Your task to perform on an android device: Go to notification settings Image 0: 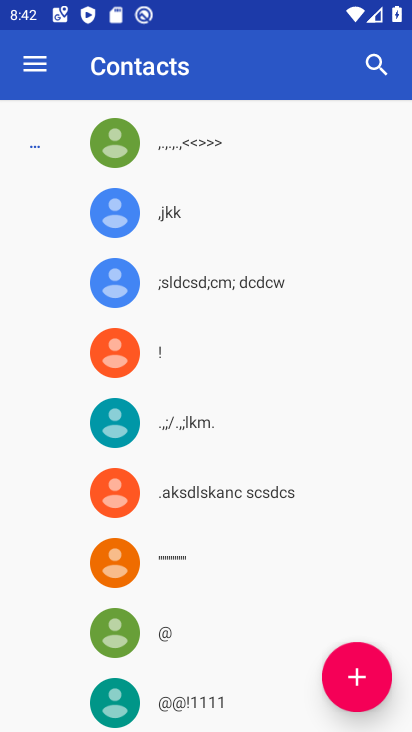
Step 0: press home button
Your task to perform on an android device: Go to notification settings Image 1: 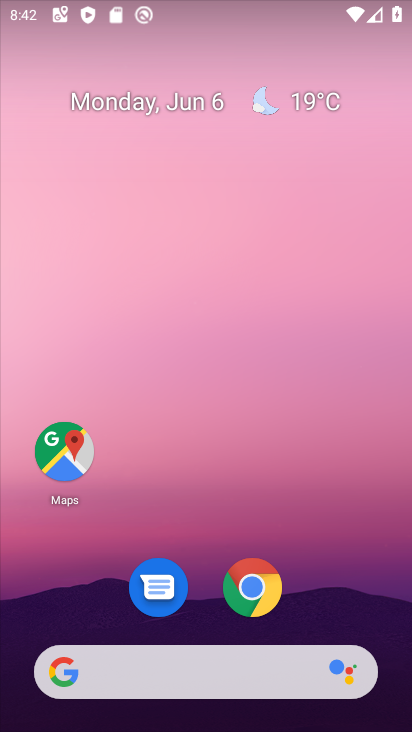
Step 1: drag from (81, 618) to (230, 173)
Your task to perform on an android device: Go to notification settings Image 2: 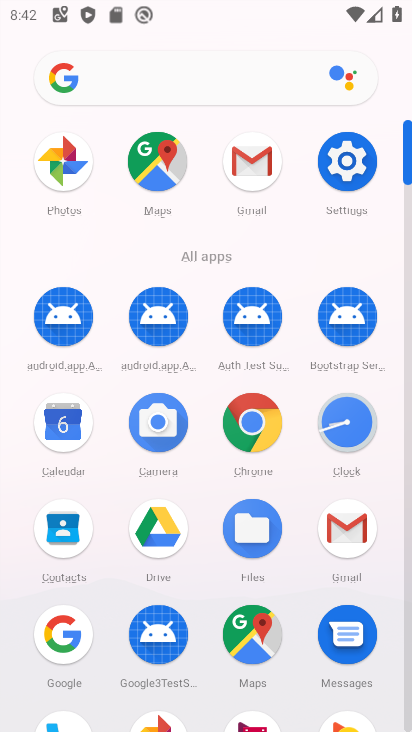
Step 2: drag from (182, 669) to (272, 280)
Your task to perform on an android device: Go to notification settings Image 3: 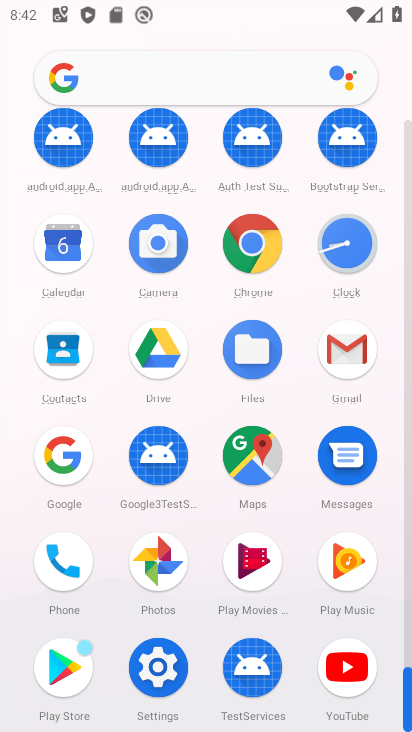
Step 3: click (148, 669)
Your task to perform on an android device: Go to notification settings Image 4: 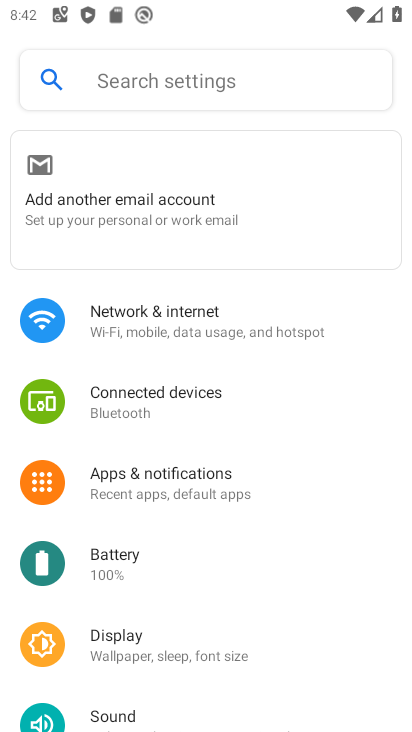
Step 4: click (220, 491)
Your task to perform on an android device: Go to notification settings Image 5: 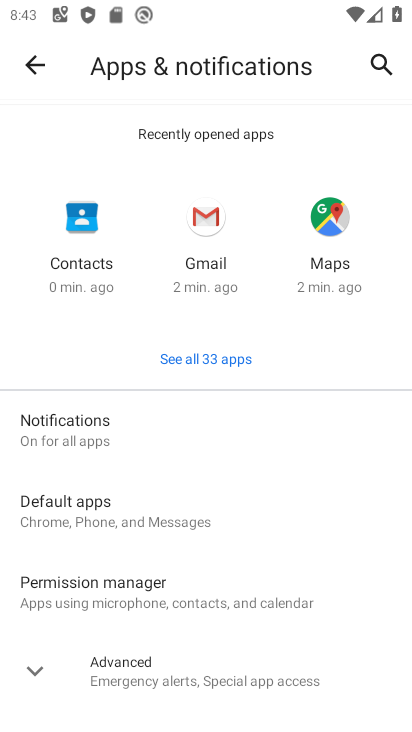
Step 5: click (212, 418)
Your task to perform on an android device: Go to notification settings Image 6: 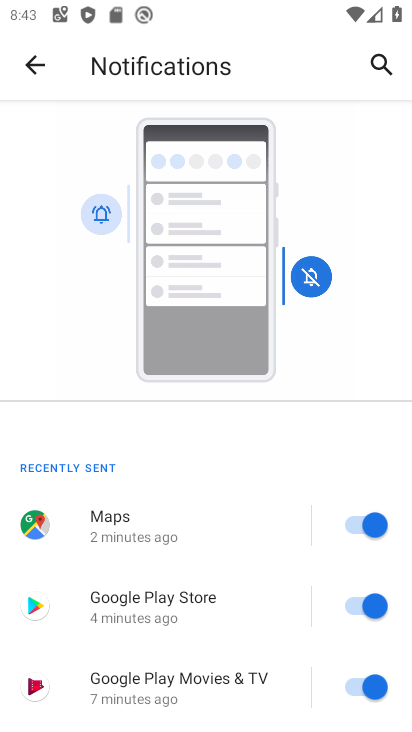
Step 6: task complete